Your task to perform on an android device: Open the calendar and show me this week's events? Image 0: 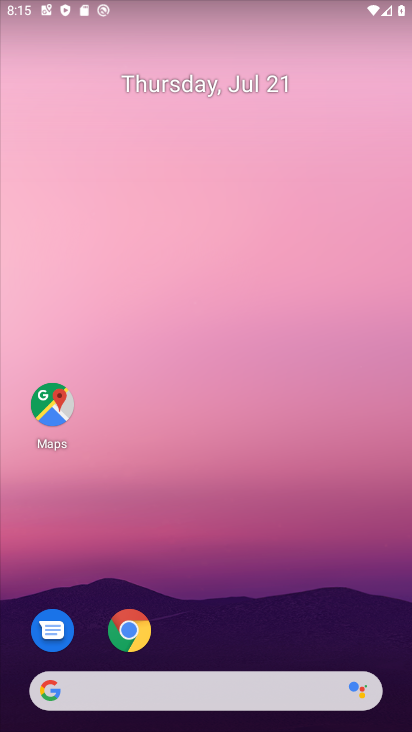
Step 0: drag from (303, 641) to (303, 120)
Your task to perform on an android device: Open the calendar and show me this week's events? Image 1: 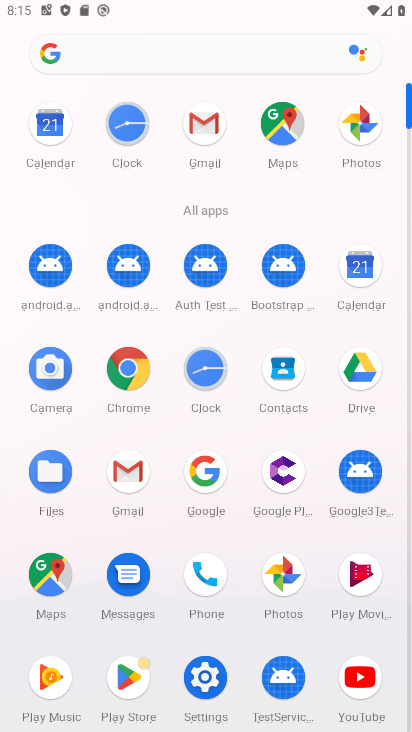
Step 1: click (370, 270)
Your task to perform on an android device: Open the calendar and show me this week's events? Image 2: 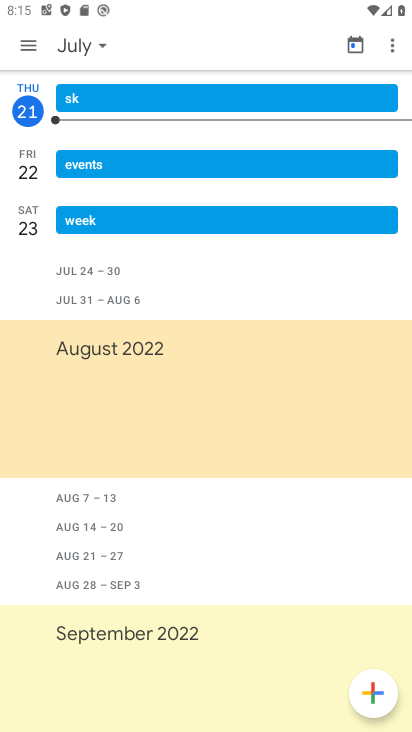
Step 2: click (96, 42)
Your task to perform on an android device: Open the calendar and show me this week's events? Image 3: 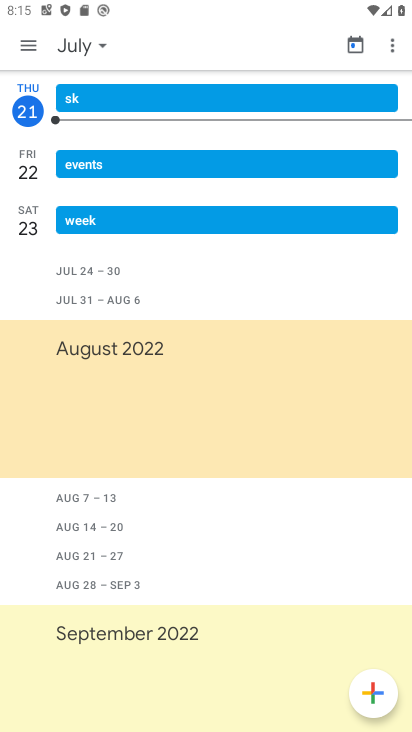
Step 3: click (96, 42)
Your task to perform on an android device: Open the calendar and show me this week's events? Image 4: 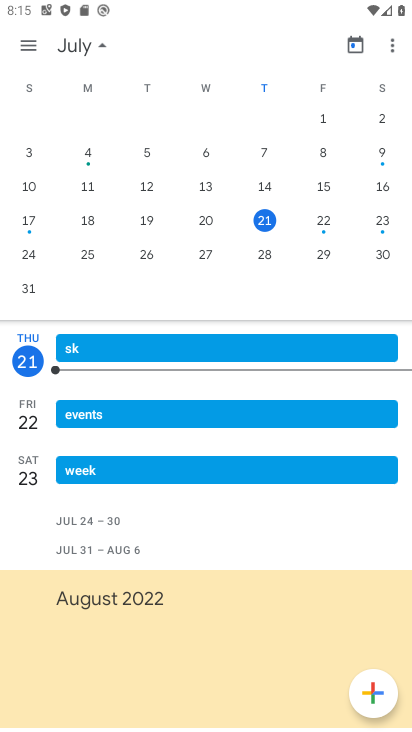
Step 4: click (260, 220)
Your task to perform on an android device: Open the calendar and show me this week's events? Image 5: 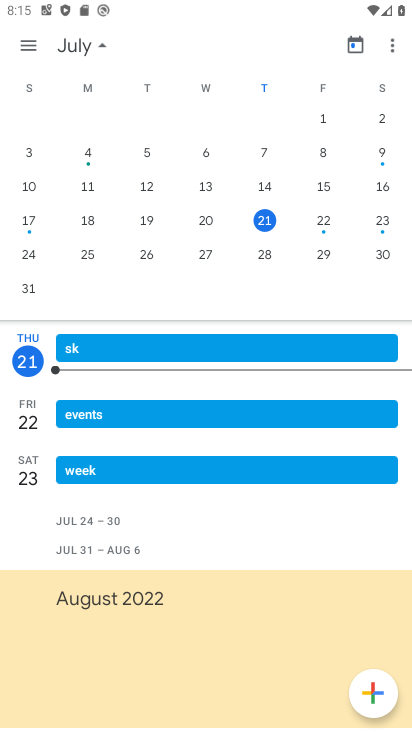
Step 5: click (312, 219)
Your task to perform on an android device: Open the calendar and show me this week's events? Image 6: 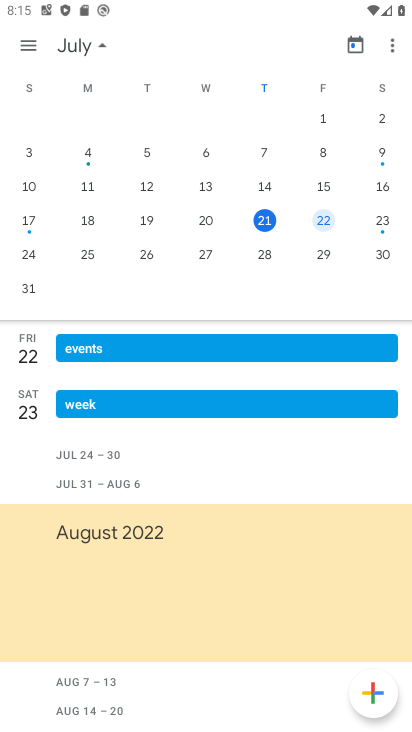
Step 6: click (384, 220)
Your task to perform on an android device: Open the calendar and show me this week's events? Image 7: 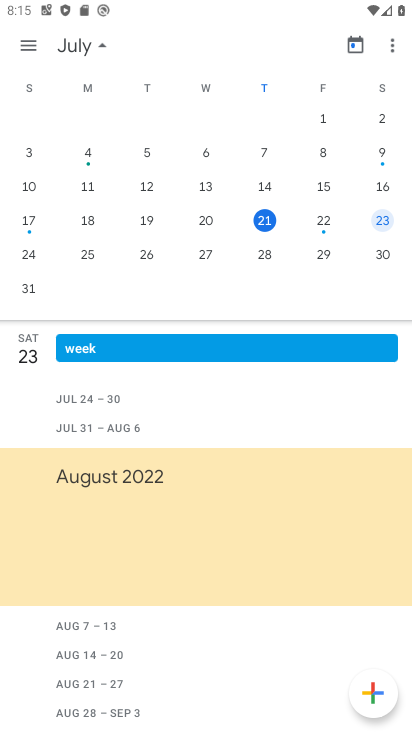
Step 7: task complete